Your task to perform on an android device: Open Google Maps and go to "Timeline" Image 0: 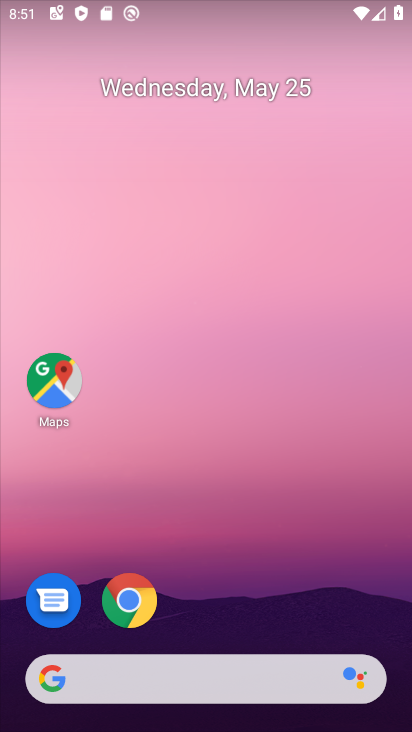
Step 0: drag from (261, 617) to (217, 80)
Your task to perform on an android device: Open Google Maps and go to "Timeline" Image 1: 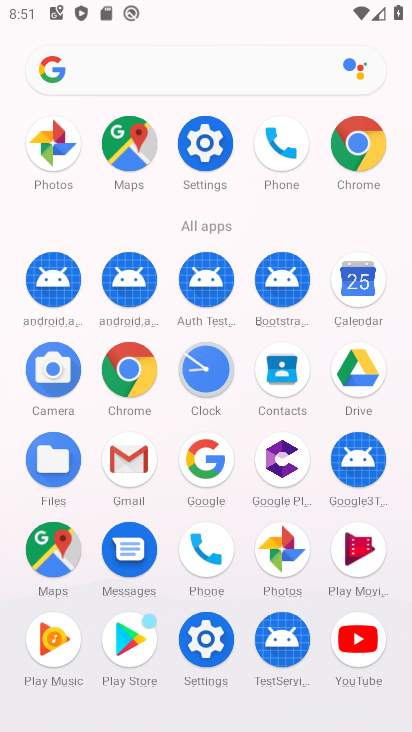
Step 1: drag from (10, 581) to (17, 357)
Your task to perform on an android device: Open Google Maps and go to "Timeline" Image 2: 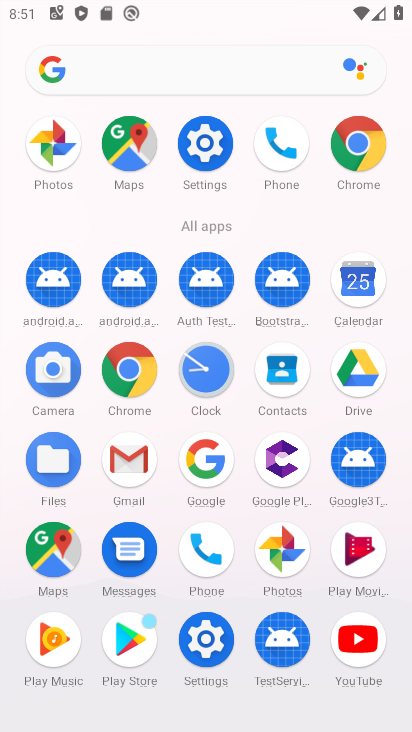
Step 2: click (54, 544)
Your task to perform on an android device: Open Google Maps and go to "Timeline" Image 3: 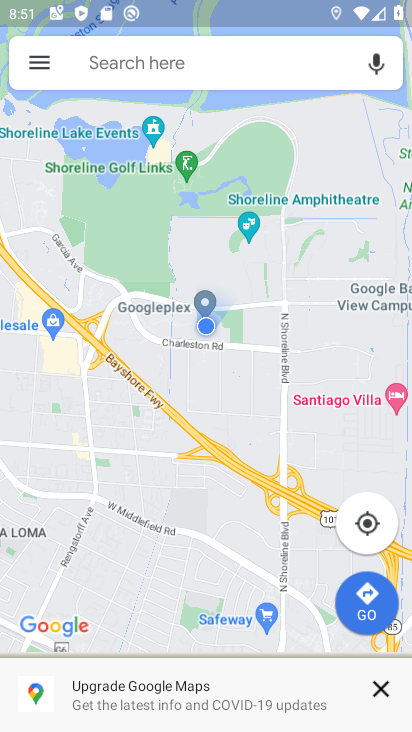
Step 3: click (46, 51)
Your task to perform on an android device: Open Google Maps and go to "Timeline" Image 4: 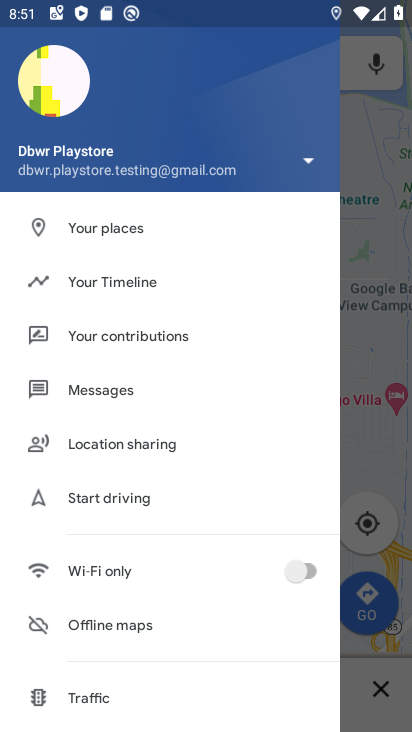
Step 4: click (93, 283)
Your task to perform on an android device: Open Google Maps and go to "Timeline" Image 5: 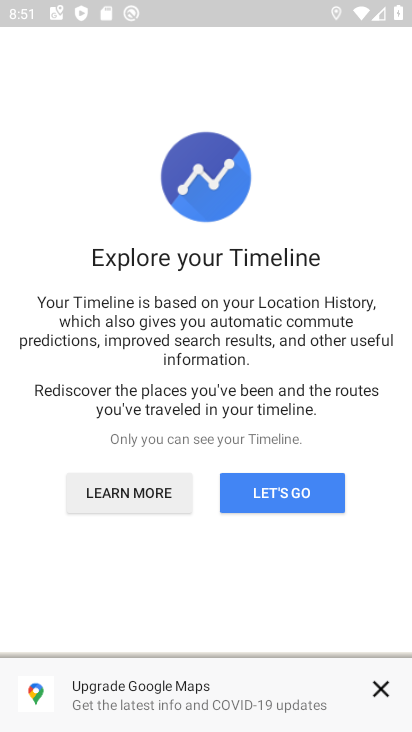
Step 5: click (293, 494)
Your task to perform on an android device: Open Google Maps and go to "Timeline" Image 6: 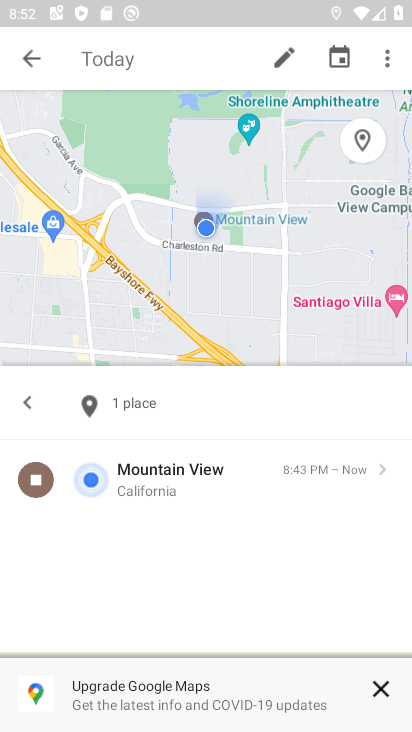
Step 6: task complete